Your task to perform on an android device: clear history in the chrome app Image 0: 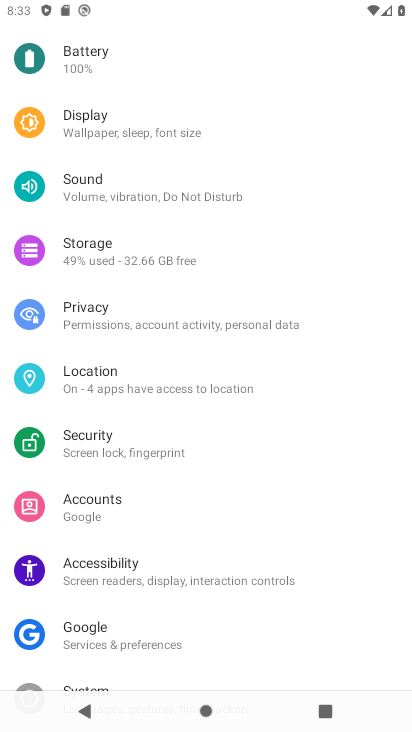
Step 0: press home button
Your task to perform on an android device: clear history in the chrome app Image 1: 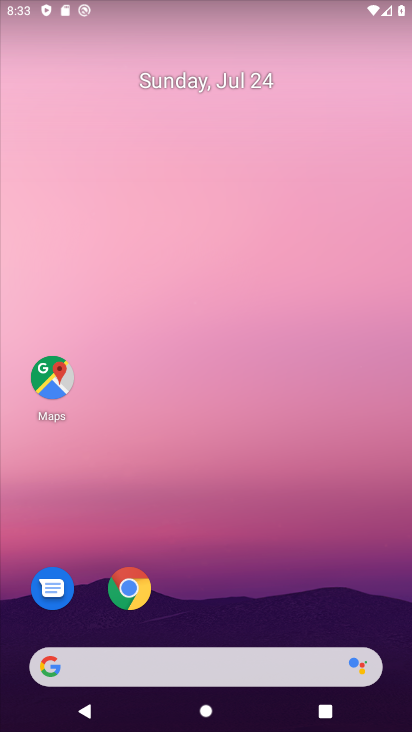
Step 1: click (150, 585)
Your task to perform on an android device: clear history in the chrome app Image 2: 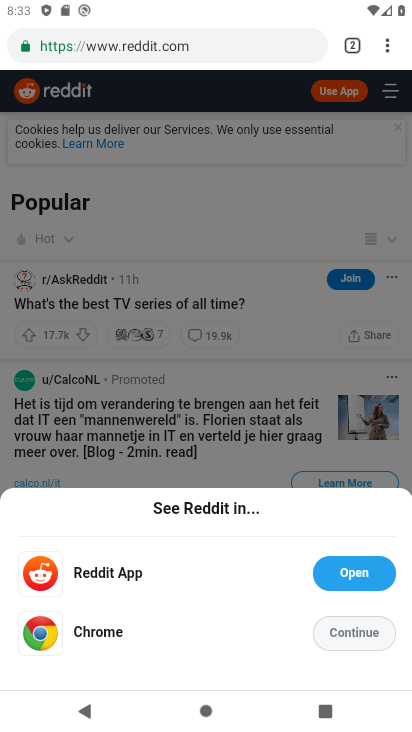
Step 2: click (395, 49)
Your task to perform on an android device: clear history in the chrome app Image 3: 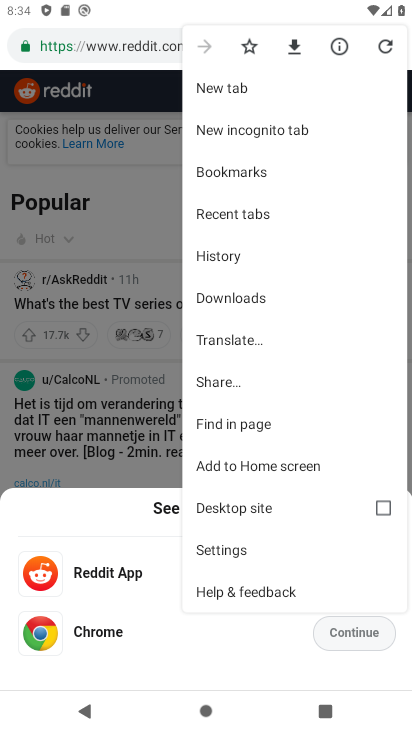
Step 3: click (232, 263)
Your task to perform on an android device: clear history in the chrome app Image 4: 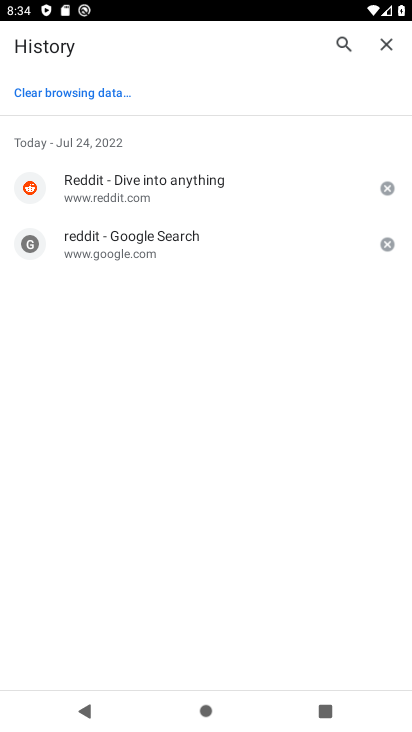
Step 4: click (94, 82)
Your task to perform on an android device: clear history in the chrome app Image 5: 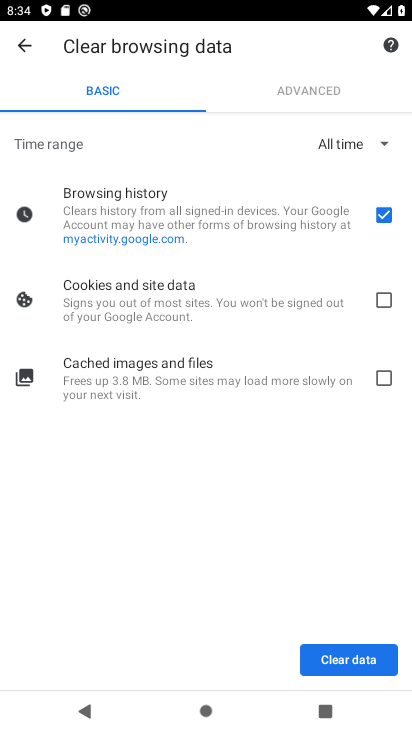
Step 5: click (386, 292)
Your task to perform on an android device: clear history in the chrome app Image 6: 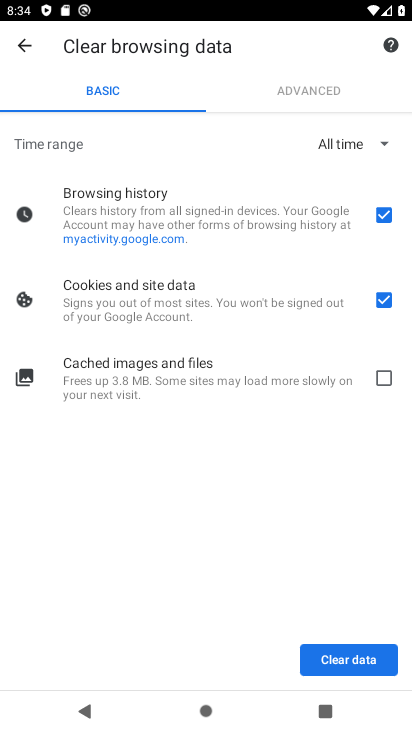
Step 6: click (383, 398)
Your task to perform on an android device: clear history in the chrome app Image 7: 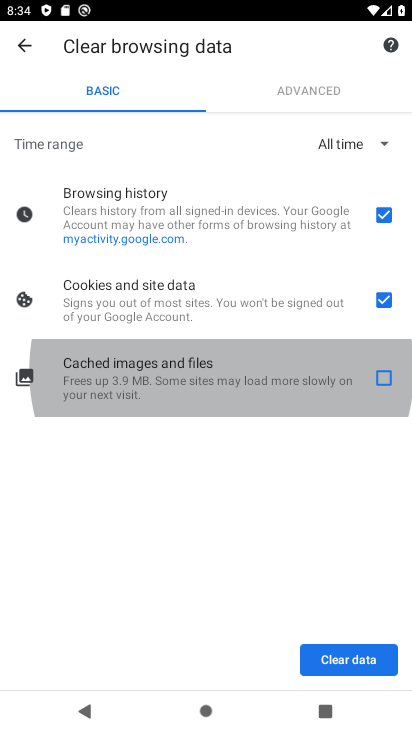
Step 7: click (383, 398)
Your task to perform on an android device: clear history in the chrome app Image 8: 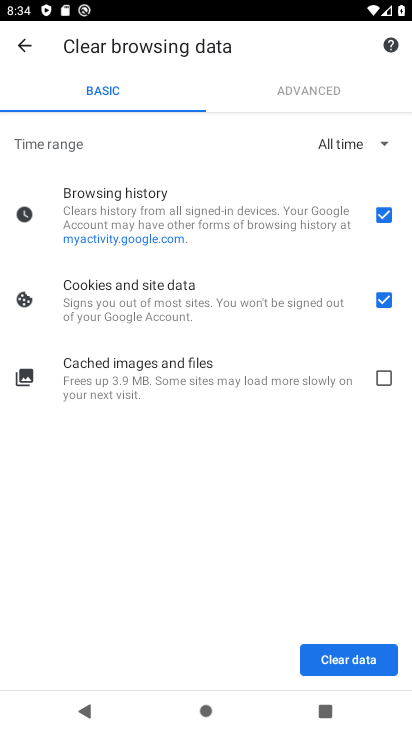
Step 8: click (369, 649)
Your task to perform on an android device: clear history in the chrome app Image 9: 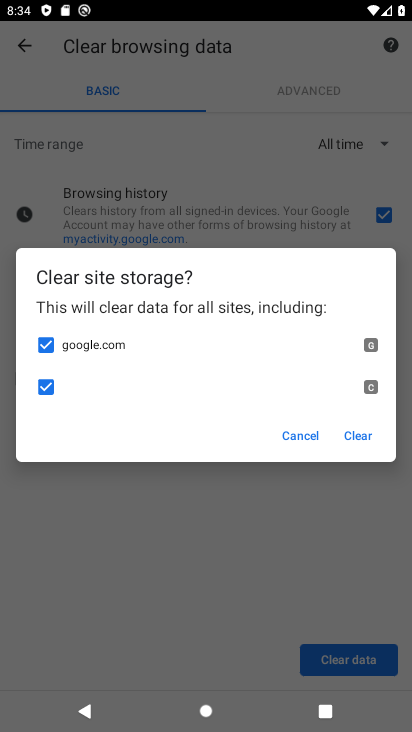
Step 9: click (358, 435)
Your task to perform on an android device: clear history in the chrome app Image 10: 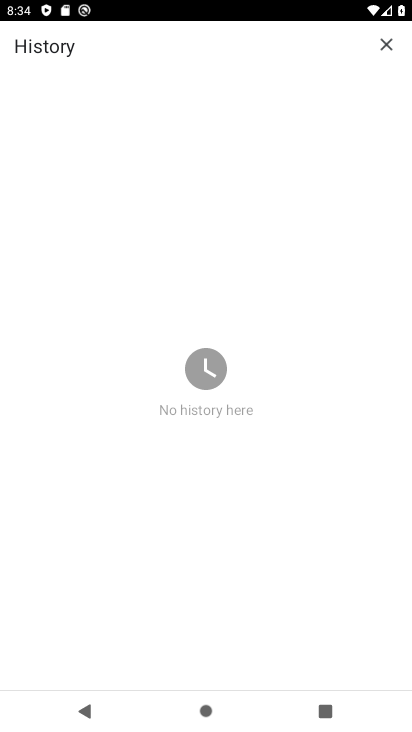
Step 10: task complete